Your task to perform on an android device: empty trash in the gmail app Image 0: 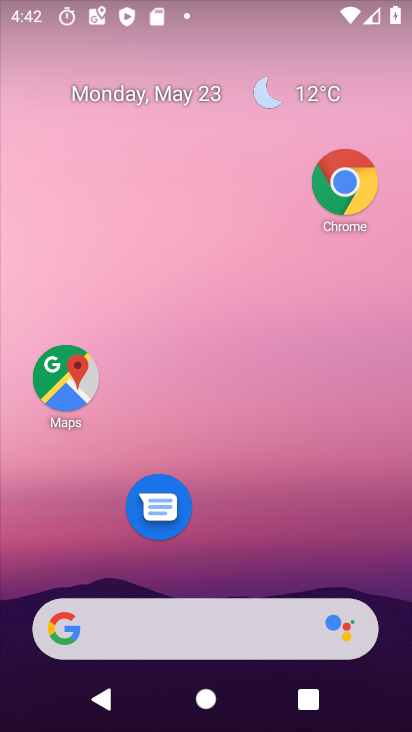
Step 0: drag from (239, 567) to (208, 85)
Your task to perform on an android device: empty trash in the gmail app Image 1: 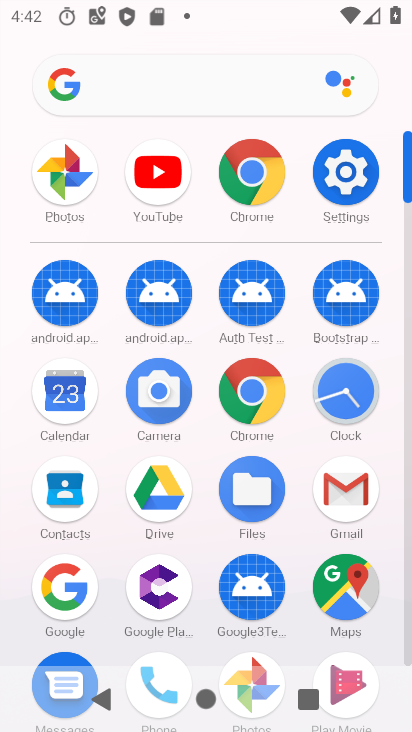
Step 1: click (343, 491)
Your task to perform on an android device: empty trash in the gmail app Image 2: 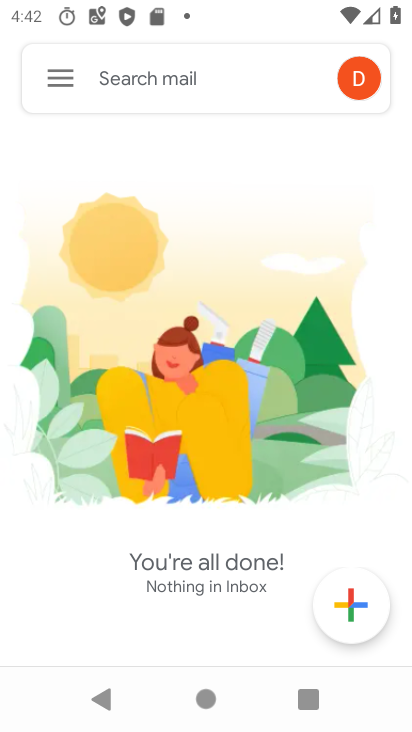
Step 2: click (69, 80)
Your task to perform on an android device: empty trash in the gmail app Image 3: 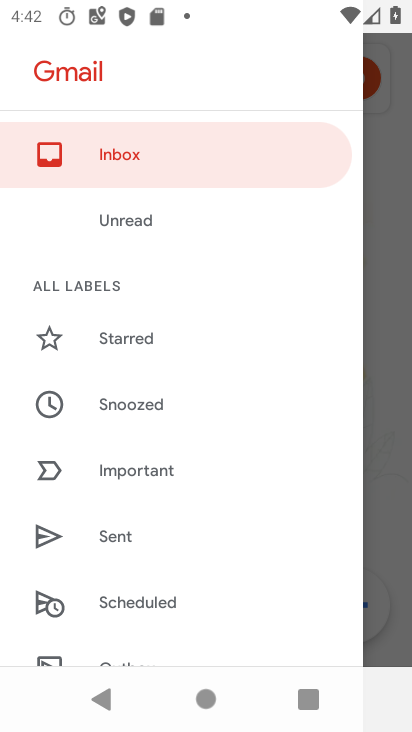
Step 3: drag from (116, 567) to (133, 68)
Your task to perform on an android device: empty trash in the gmail app Image 4: 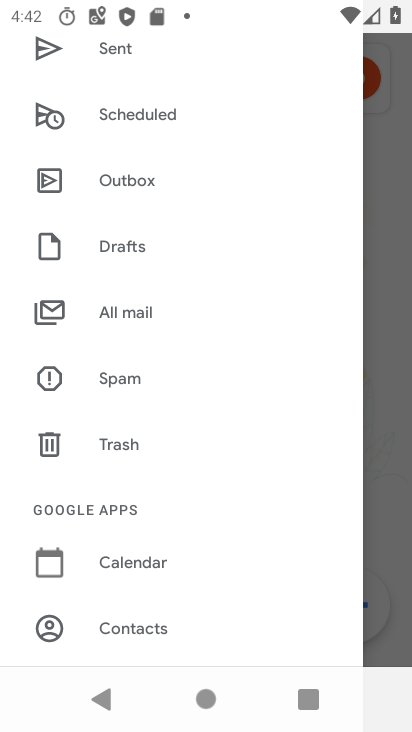
Step 4: click (108, 433)
Your task to perform on an android device: empty trash in the gmail app Image 5: 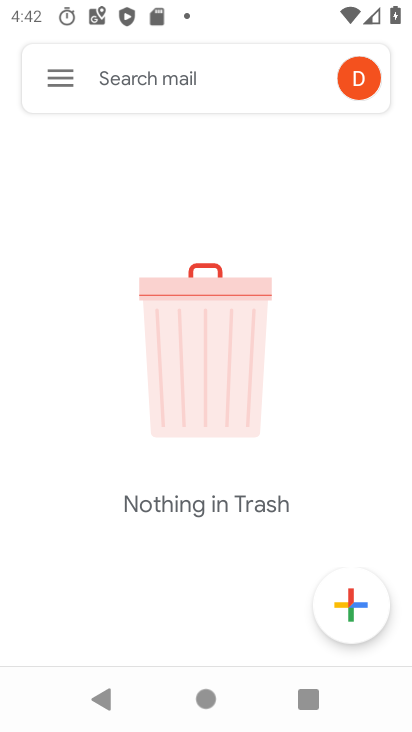
Step 5: task complete